Your task to perform on an android device: Go to settings Image 0: 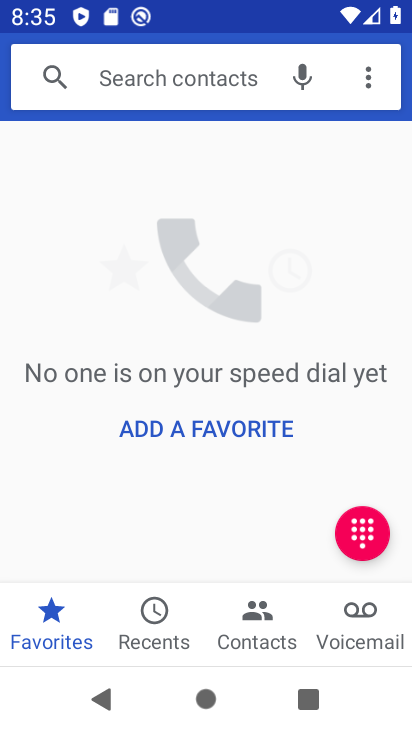
Step 0: press home button
Your task to perform on an android device: Go to settings Image 1: 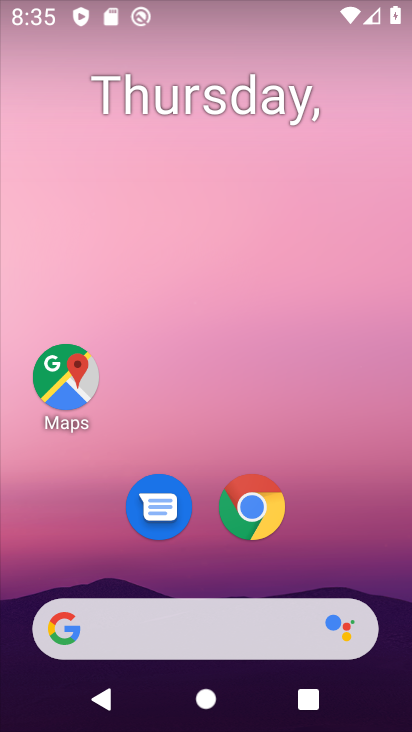
Step 1: drag from (206, 559) to (280, 0)
Your task to perform on an android device: Go to settings Image 2: 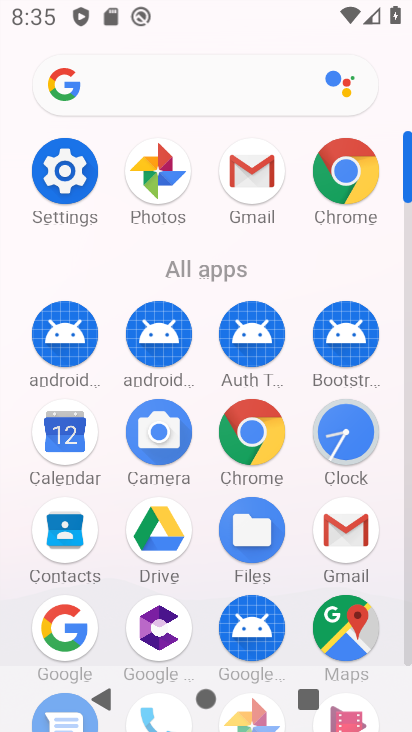
Step 2: click (74, 190)
Your task to perform on an android device: Go to settings Image 3: 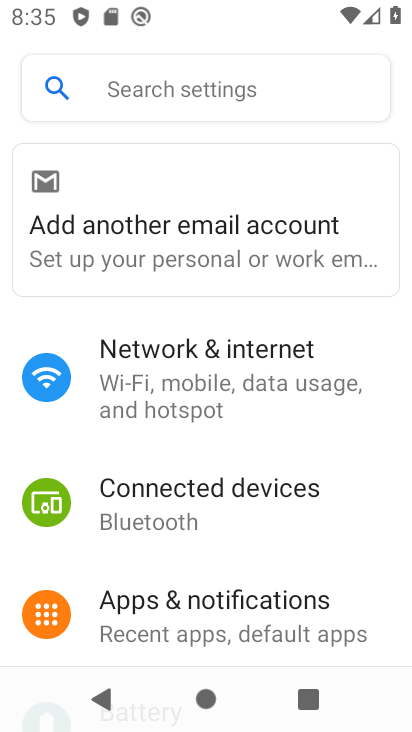
Step 3: task complete